Your task to perform on an android device: find which apps use the phone's location Image 0: 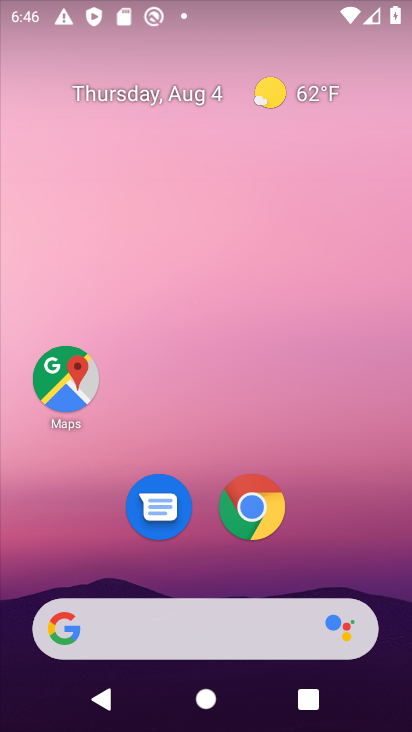
Step 0: drag from (389, 637) to (218, 80)
Your task to perform on an android device: find which apps use the phone's location Image 1: 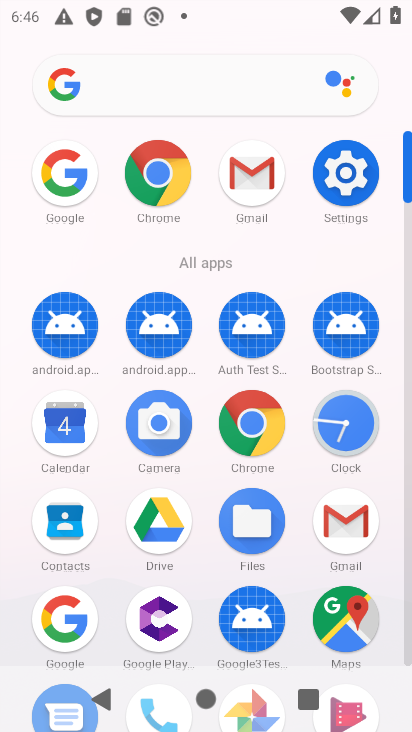
Step 1: click (347, 170)
Your task to perform on an android device: find which apps use the phone's location Image 2: 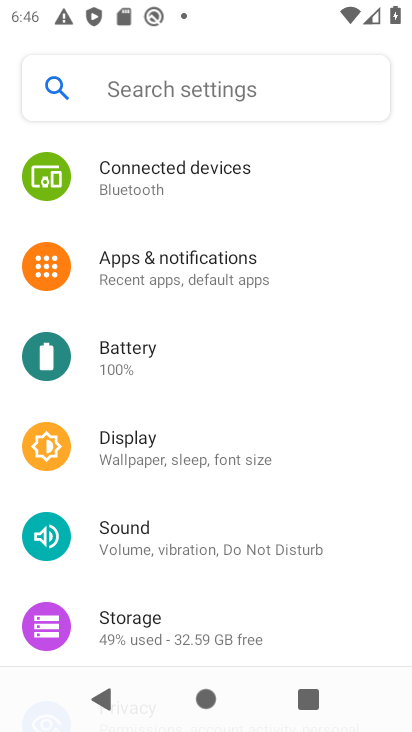
Step 2: drag from (202, 593) to (212, 115)
Your task to perform on an android device: find which apps use the phone's location Image 3: 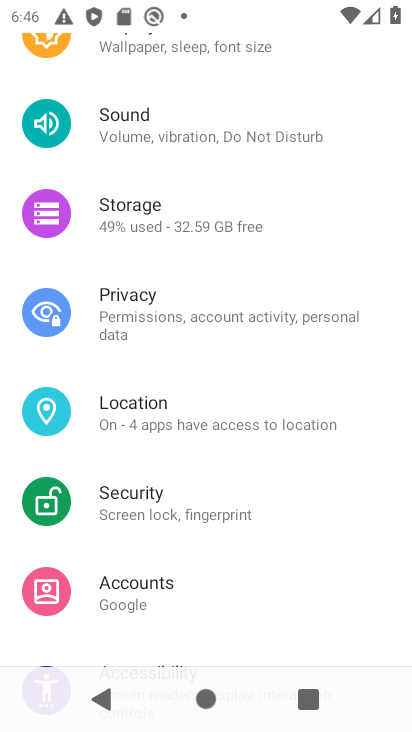
Step 3: click (170, 407)
Your task to perform on an android device: find which apps use the phone's location Image 4: 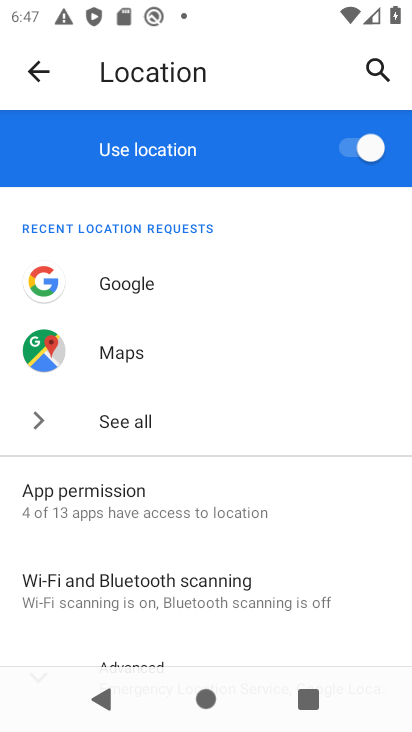
Step 4: click (143, 504)
Your task to perform on an android device: find which apps use the phone's location Image 5: 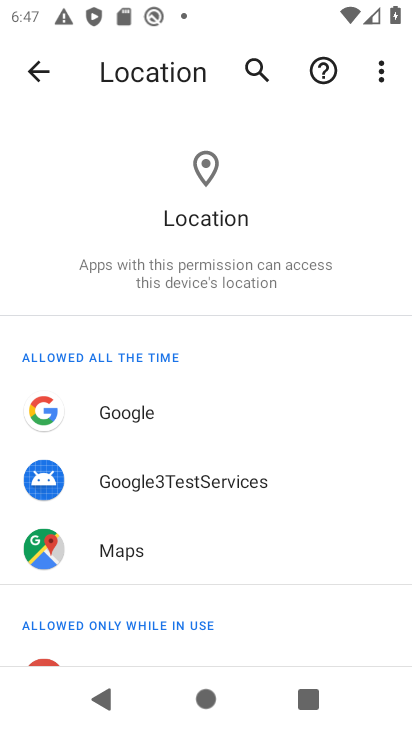
Step 5: drag from (112, 590) to (164, 134)
Your task to perform on an android device: find which apps use the phone's location Image 6: 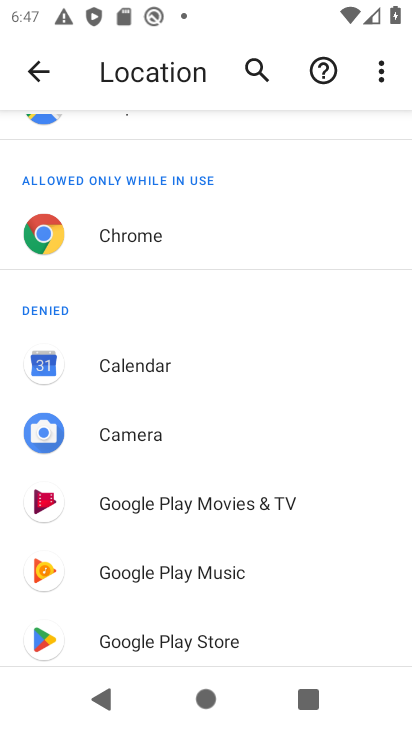
Step 6: drag from (146, 625) to (179, 208)
Your task to perform on an android device: find which apps use the phone's location Image 7: 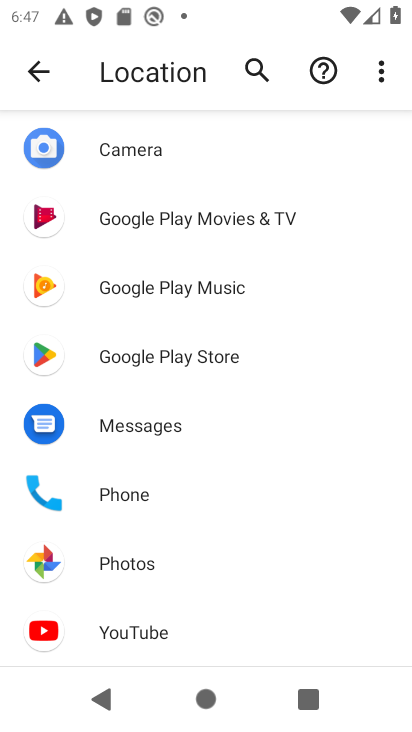
Step 7: click (130, 503)
Your task to perform on an android device: find which apps use the phone's location Image 8: 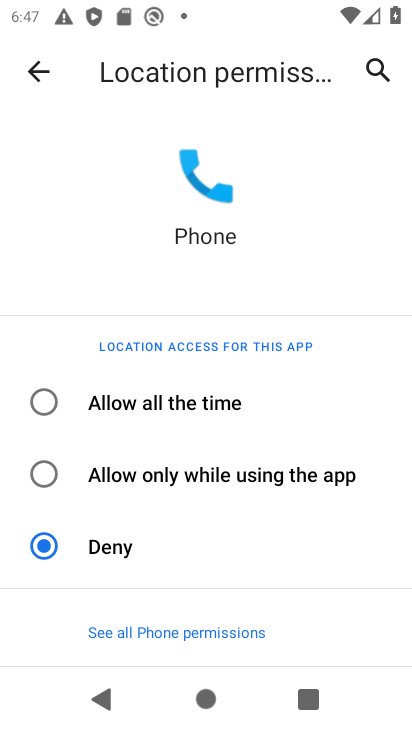
Step 8: click (50, 405)
Your task to perform on an android device: find which apps use the phone's location Image 9: 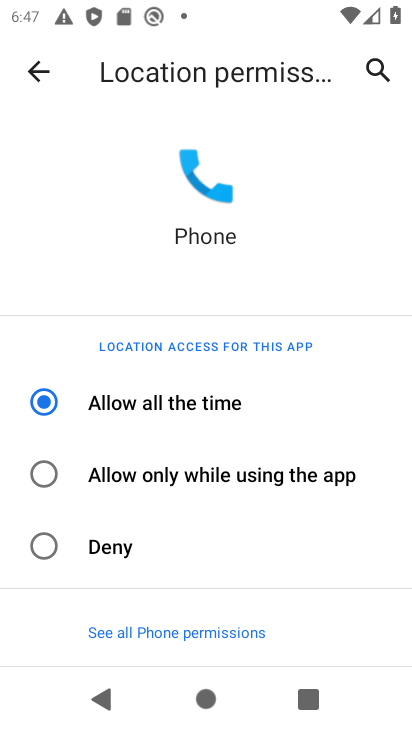
Step 9: task complete